Your task to perform on an android device: Open maps Image 0: 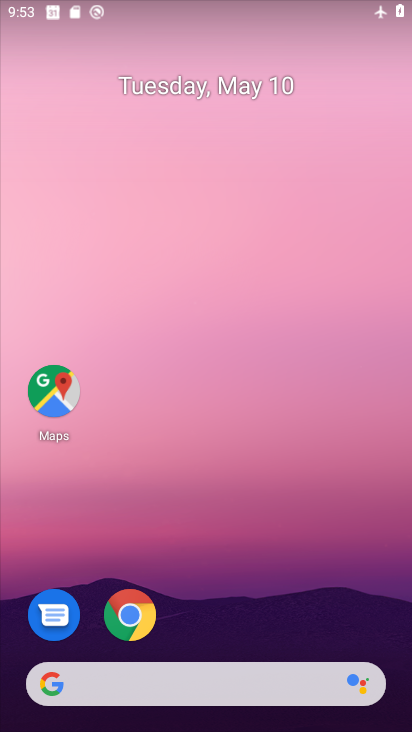
Step 0: drag from (220, 664) to (219, 157)
Your task to perform on an android device: Open maps Image 1: 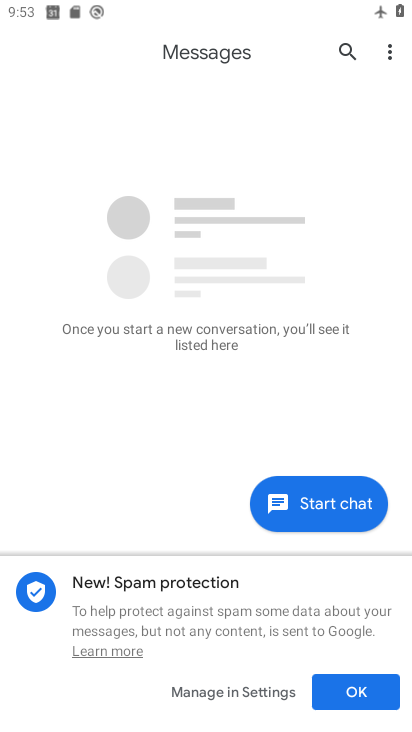
Step 1: press home button
Your task to perform on an android device: Open maps Image 2: 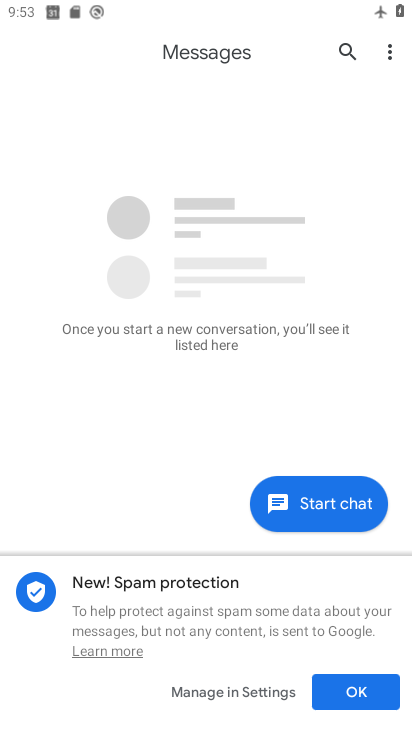
Step 2: press home button
Your task to perform on an android device: Open maps Image 3: 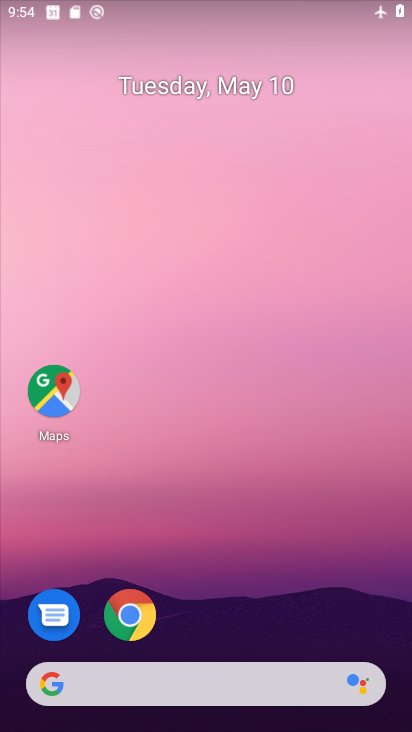
Step 3: click (58, 395)
Your task to perform on an android device: Open maps Image 4: 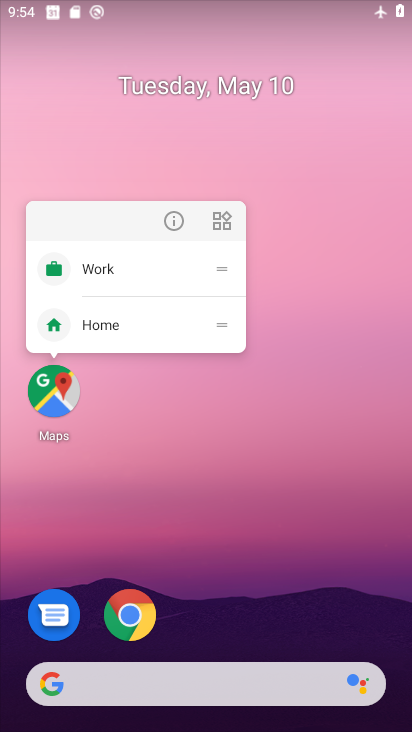
Step 4: click (173, 217)
Your task to perform on an android device: Open maps Image 5: 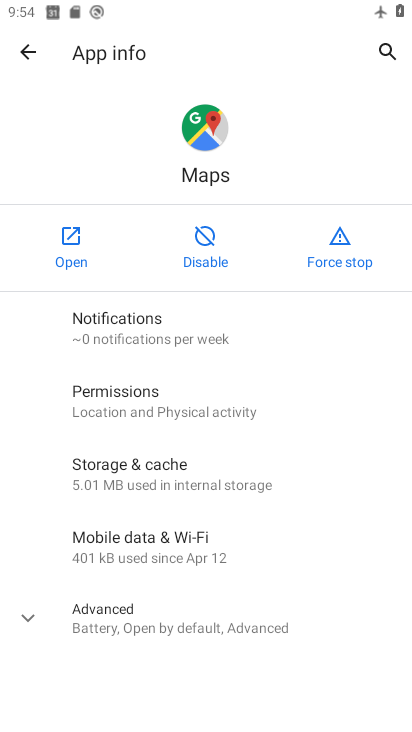
Step 5: click (56, 311)
Your task to perform on an android device: Open maps Image 6: 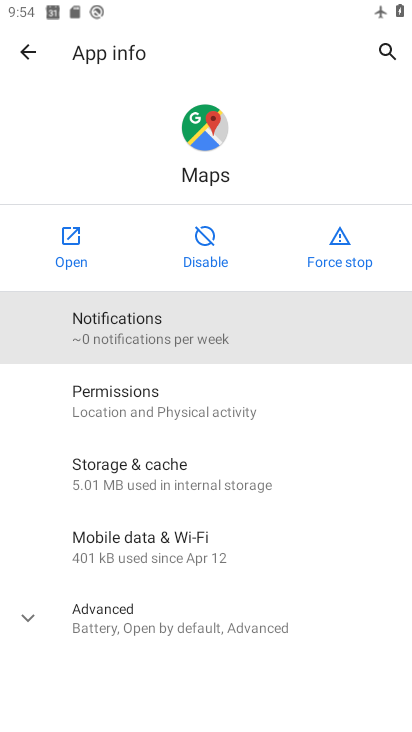
Step 6: click (83, 246)
Your task to perform on an android device: Open maps Image 7: 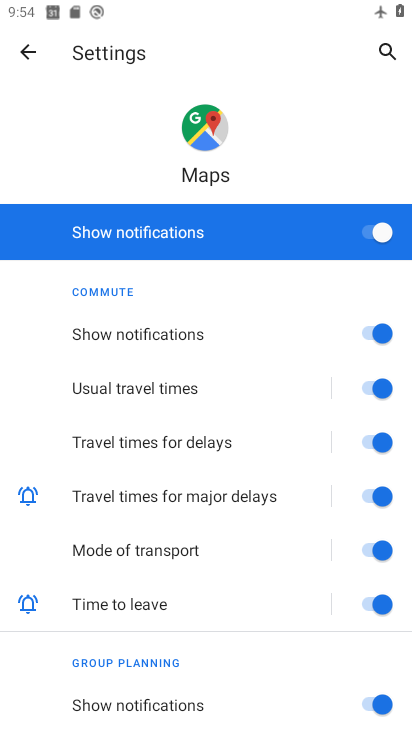
Step 7: click (21, 56)
Your task to perform on an android device: Open maps Image 8: 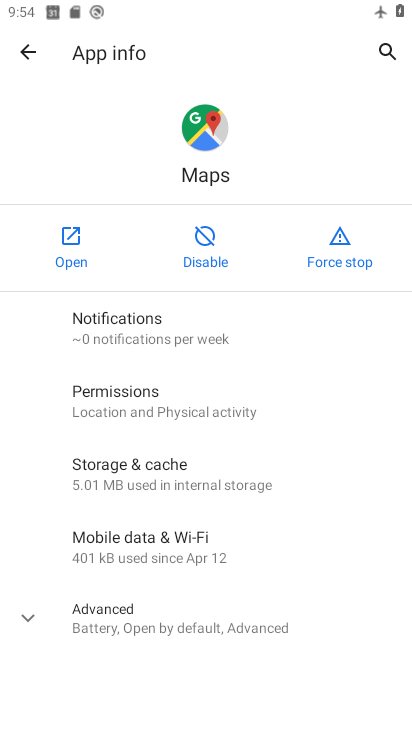
Step 8: click (71, 249)
Your task to perform on an android device: Open maps Image 9: 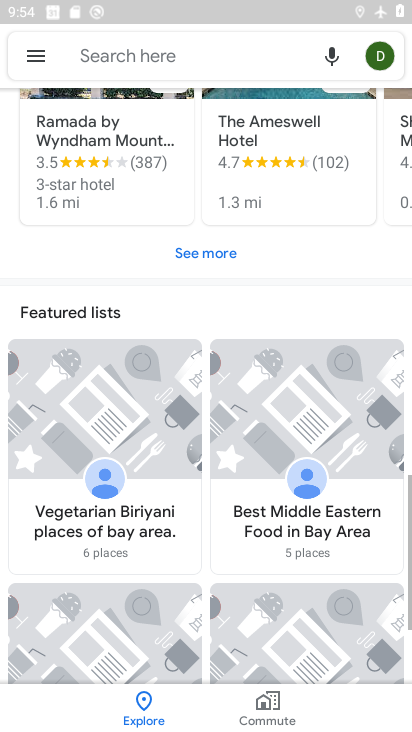
Step 9: task complete